Your task to perform on an android device: Open the map Image 0: 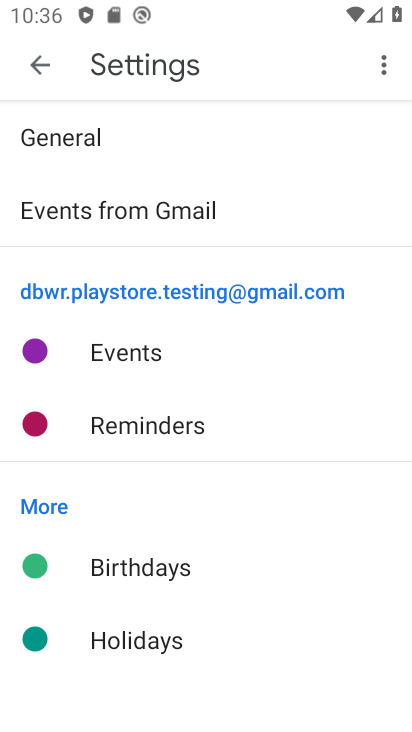
Step 0: press home button
Your task to perform on an android device: Open the map Image 1: 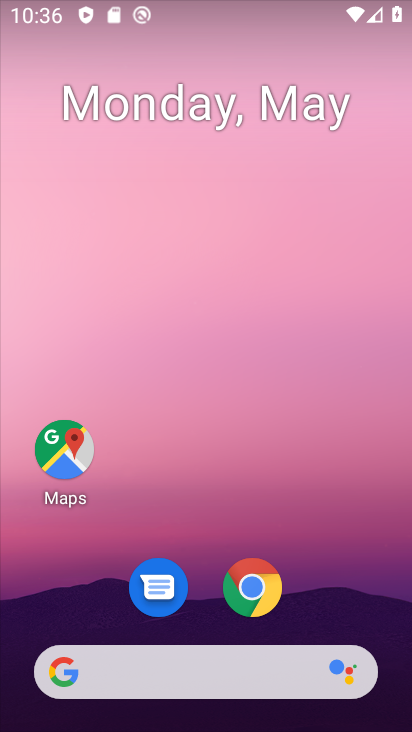
Step 1: click (60, 473)
Your task to perform on an android device: Open the map Image 2: 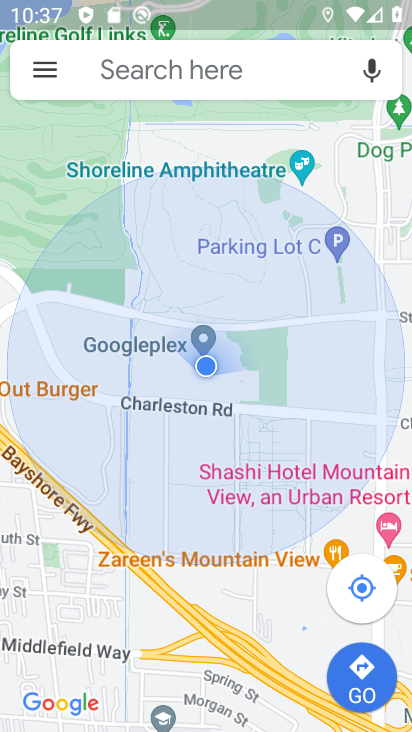
Step 2: task complete